Your task to perform on an android device: Open calendar and show me the third week of next month Image 0: 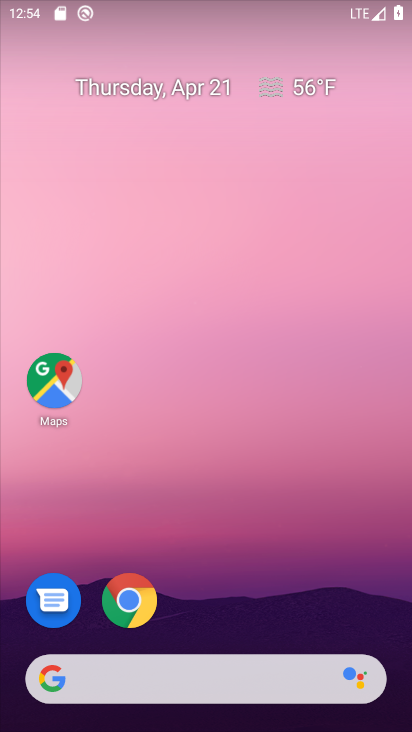
Step 0: drag from (328, 545) to (347, 87)
Your task to perform on an android device: Open calendar and show me the third week of next month Image 1: 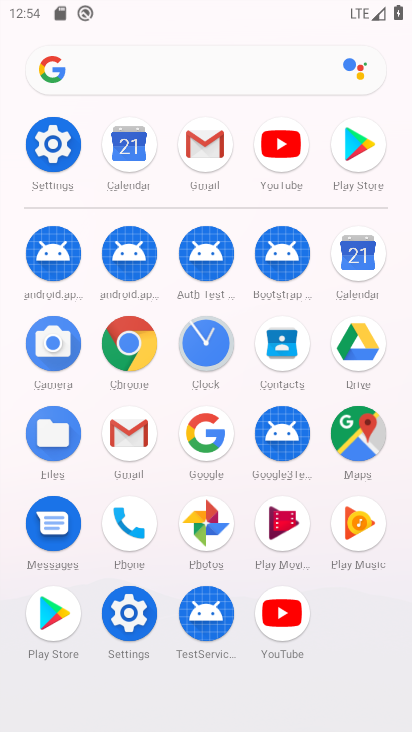
Step 1: click (129, 143)
Your task to perform on an android device: Open calendar and show me the third week of next month Image 2: 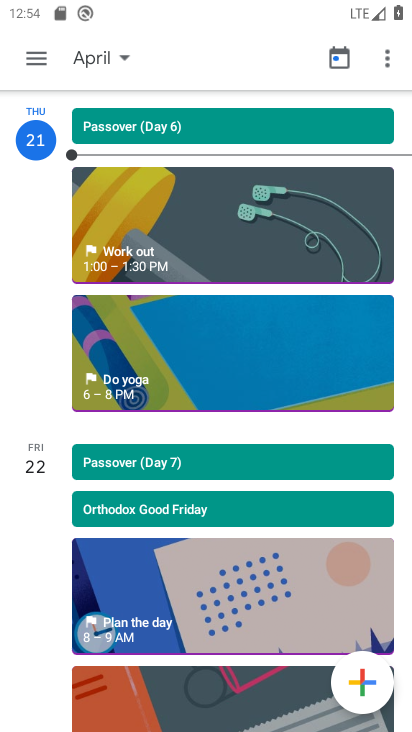
Step 2: click (38, 62)
Your task to perform on an android device: Open calendar and show me the third week of next month Image 3: 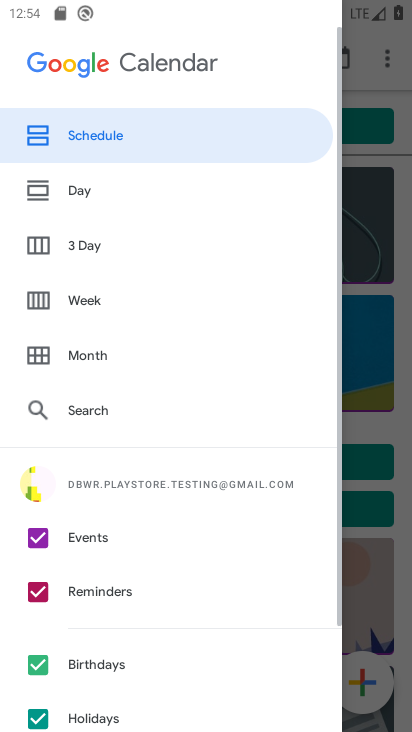
Step 3: click (62, 289)
Your task to perform on an android device: Open calendar and show me the third week of next month Image 4: 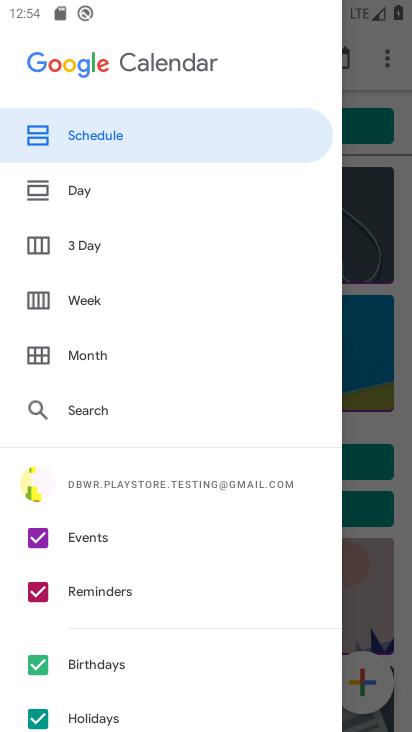
Step 4: click (42, 299)
Your task to perform on an android device: Open calendar and show me the third week of next month Image 5: 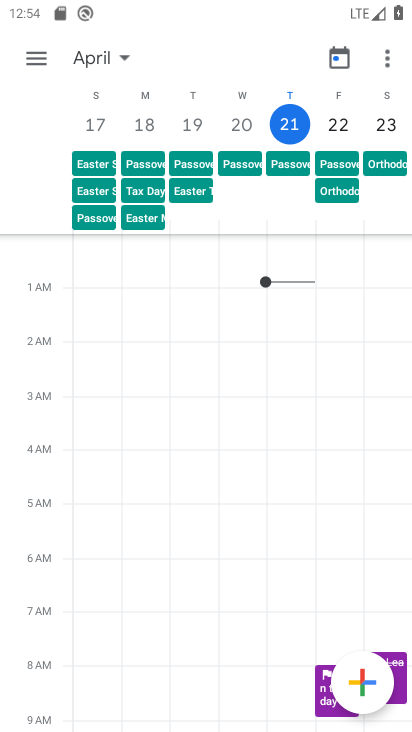
Step 5: task complete